Your task to perform on an android device: Open accessibility settings Image 0: 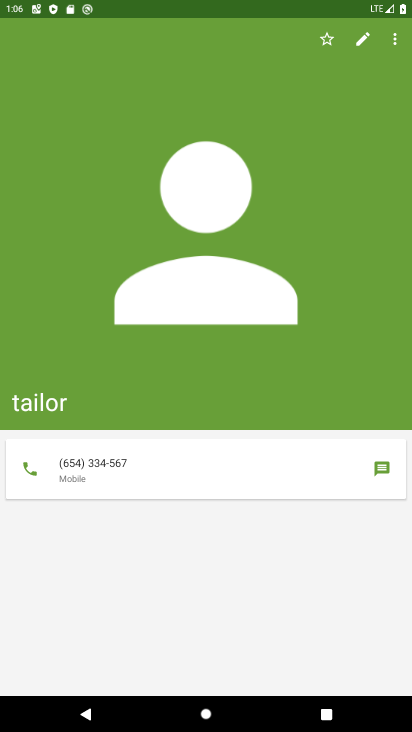
Step 0: press home button
Your task to perform on an android device: Open accessibility settings Image 1: 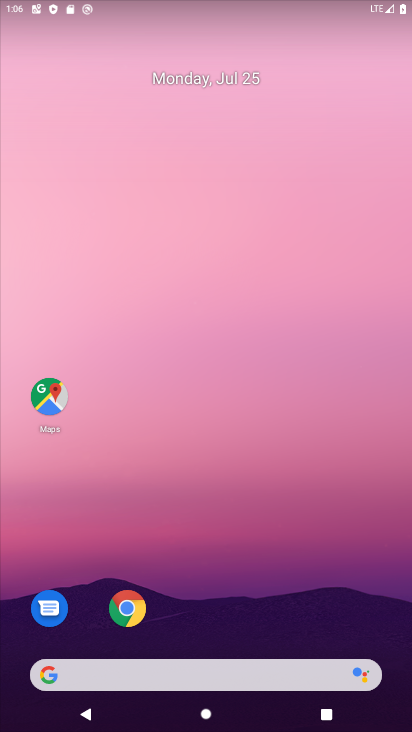
Step 1: drag from (255, 650) to (208, 0)
Your task to perform on an android device: Open accessibility settings Image 2: 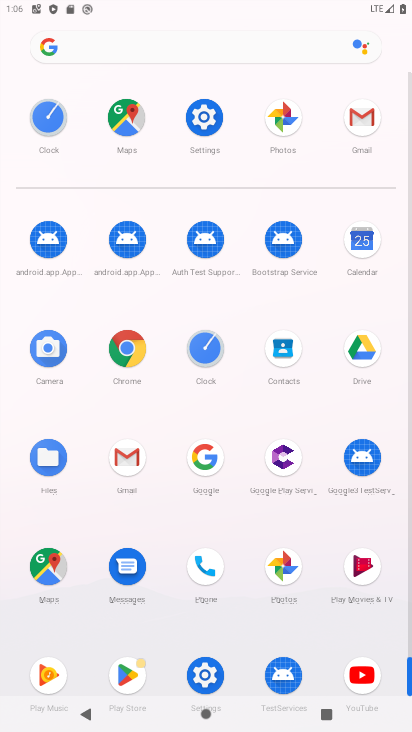
Step 2: click (200, 112)
Your task to perform on an android device: Open accessibility settings Image 3: 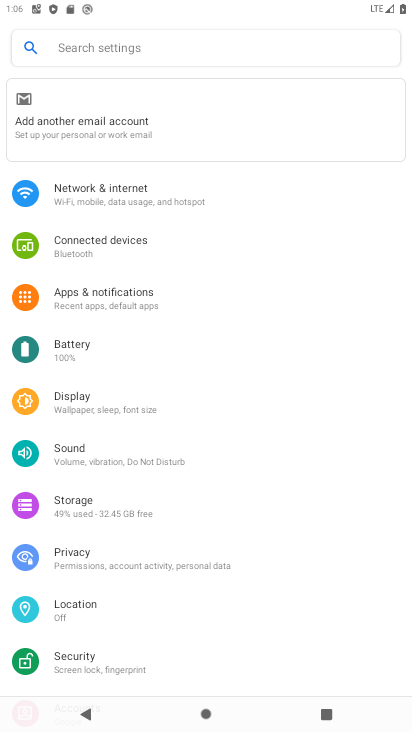
Step 3: drag from (204, 417) to (165, 183)
Your task to perform on an android device: Open accessibility settings Image 4: 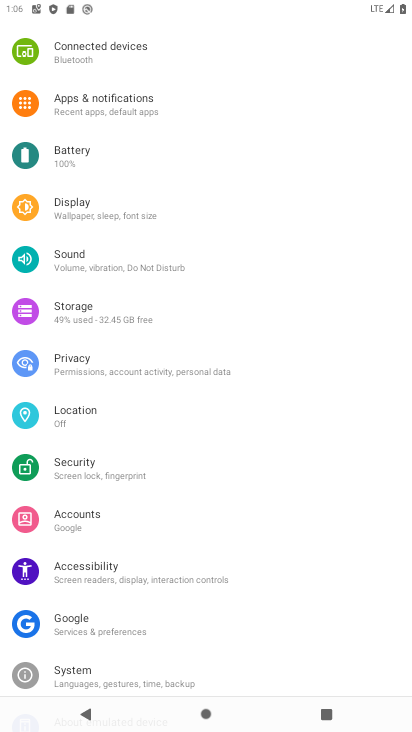
Step 4: click (60, 573)
Your task to perform on an android device: Open accessibility settings Image 5: 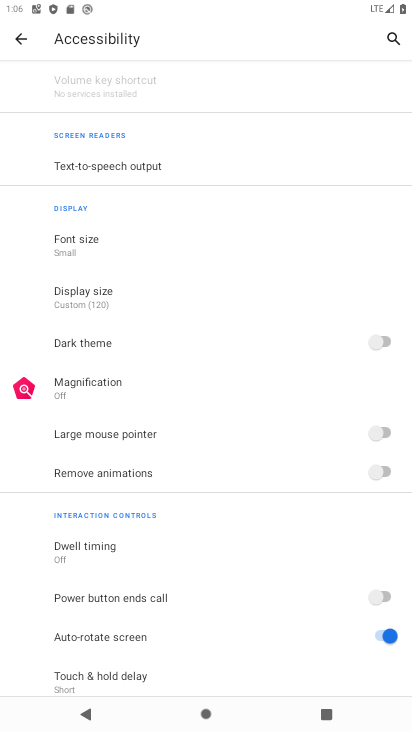
Step 5: task complete